Your task to perform on an android device: Open the calendar and show me this week's events Image 0: 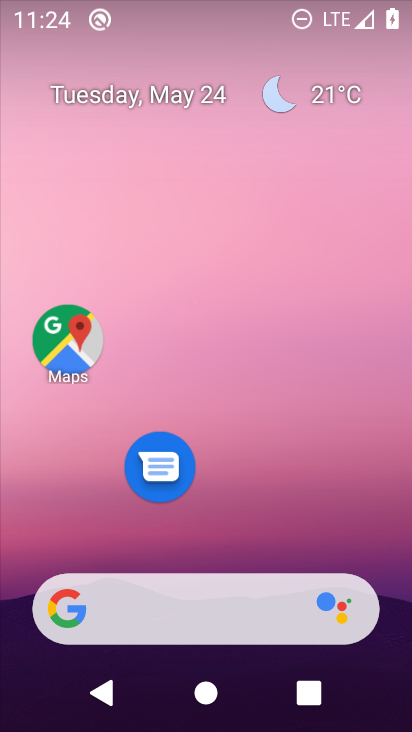
Step 0: drag from (207, 543) to (249, 326)
Your task to perform on an android device: Open the calendar and show me this week's events Image 1: 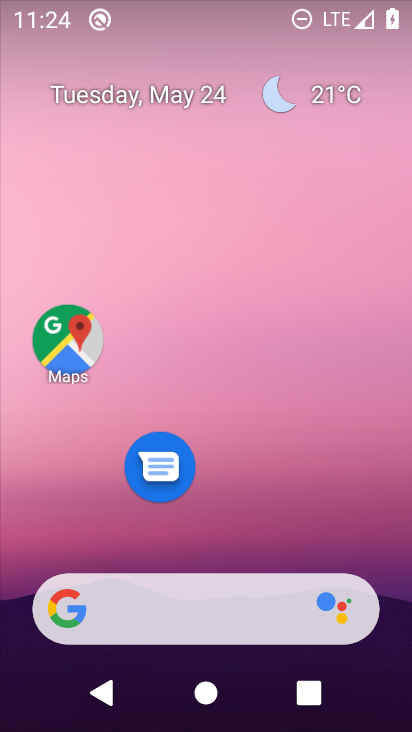
Step 1: click (306, 250)
Your task to perform on an android device: Open the calendar and show me this week's events Image 2: 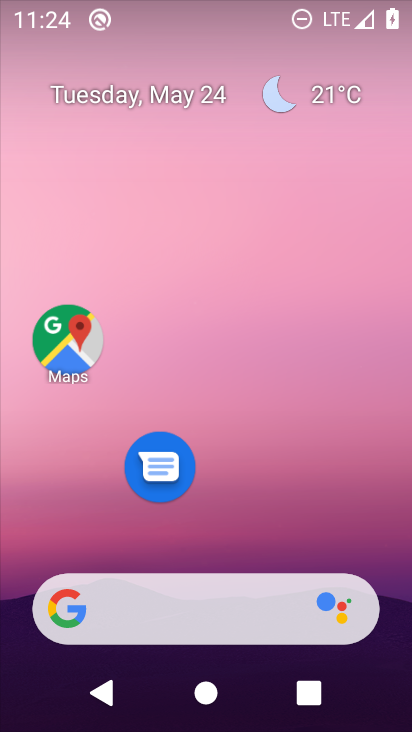
Step 2: drag from (200, 542) to (376, 152)
Your task to perform on an android device: Open the calendar and show me this week's events Image 3: 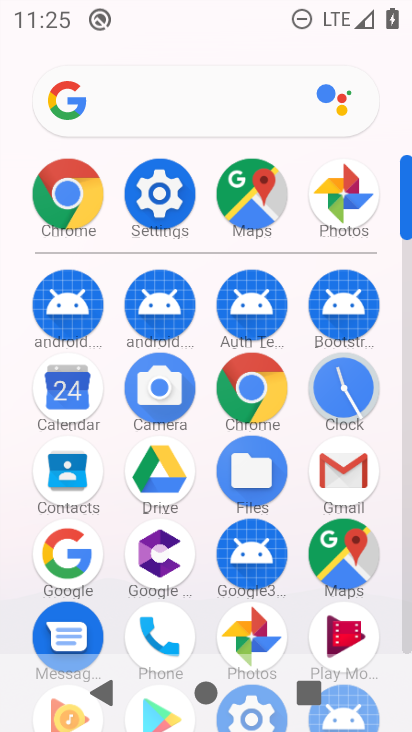
Step 3: click (95, 398)
Your task to perform on an android device: Open the calendar and show me this week's events Image 4: 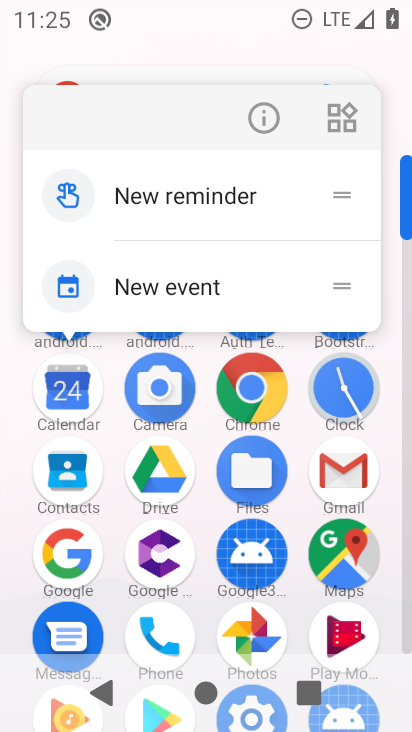
Step 4: click (274, 125)
Your task to perform on an android device: Open the calendar and show me this week's events Image 5: 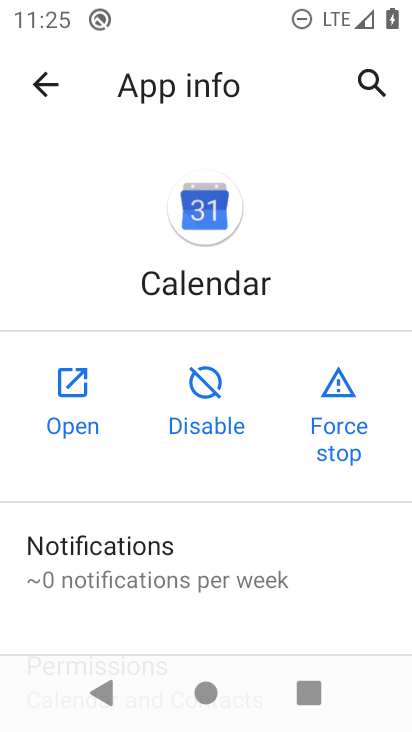
Step 5: click (80, 389)
Your task to perform on an android device: Open the calendar and show me this week's events Image 6: 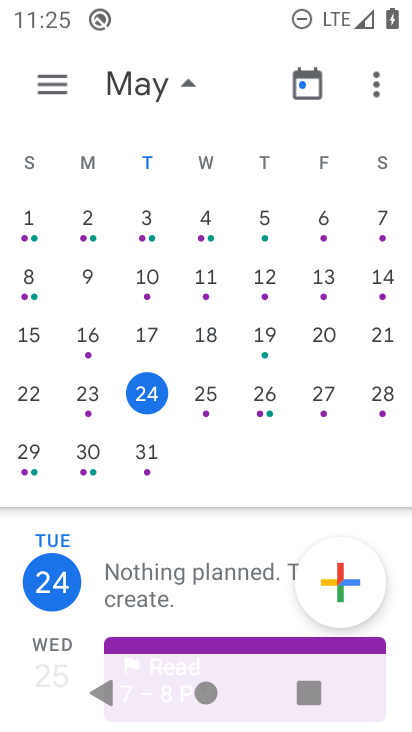
Step 6: click (324, 395)
Your task to perform on an android device: Open the calendar and show me this week's events Image 7: 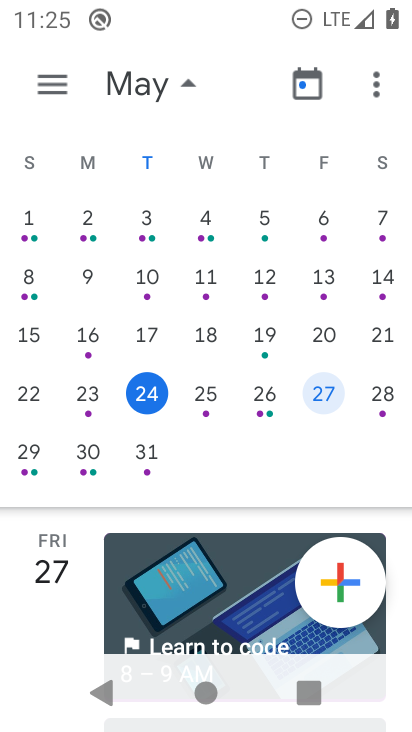
Step 7: task complete